Your task to perform on an android device: Clear the shopping cart on bestbuy.com. Image 0: 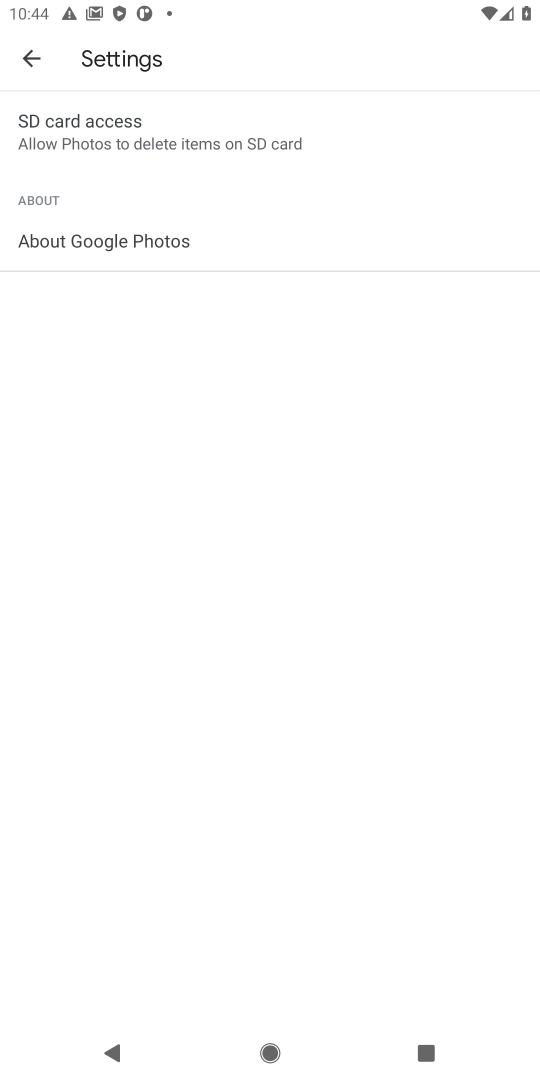
Step 0: press home button
Your task to perform on an android device: Clear the shopping cart on bestbuy.com. Image 1: 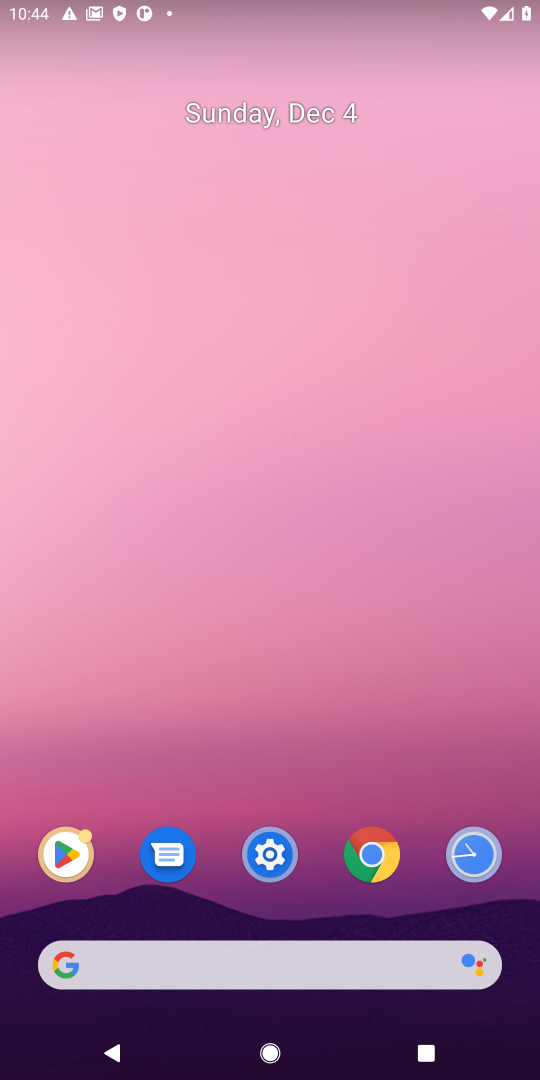
Step 1: click (278, 978)
Your task to perform on an android device: Clear the shopping cart on bestbuy.com. Image 2: 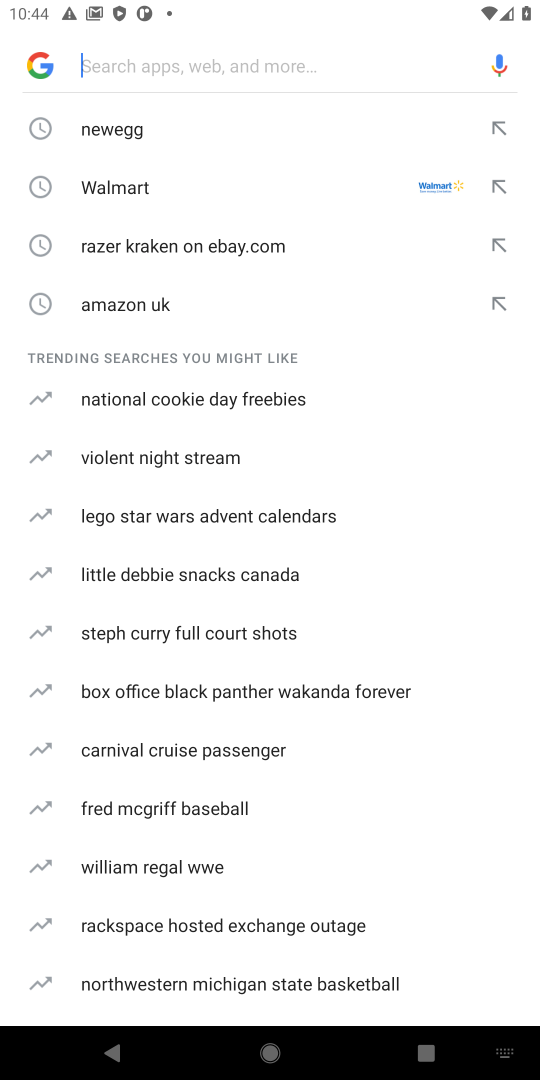
Step 2: click (161, 157)
Your task to perform on an android device: Clear the shopping cart on bestbuy.com. Image 3: 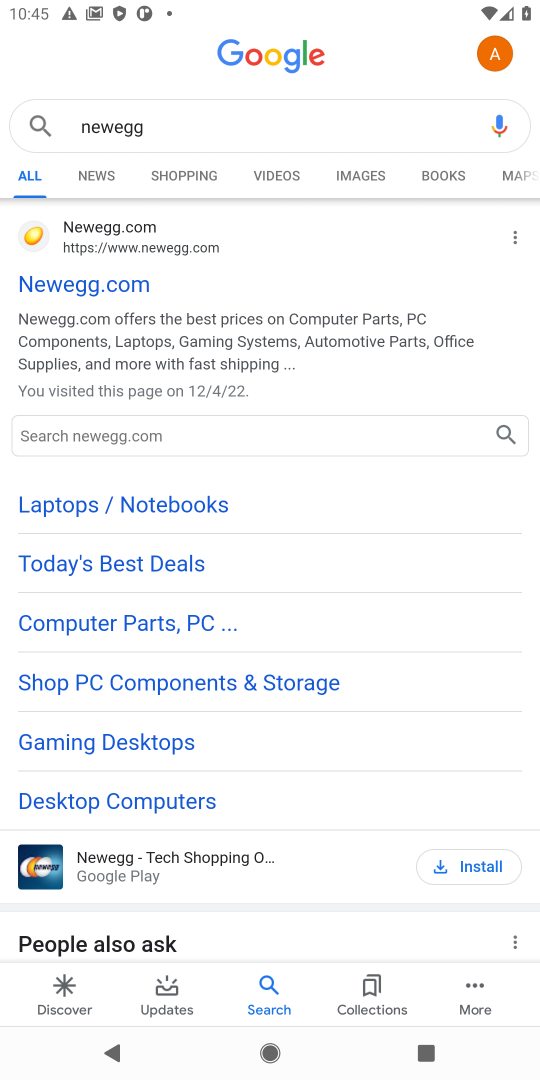
Step 3: click (97, 264)
Your task to perform on an android device: Clear the shopping cart on bestbuy.com. Image 4: 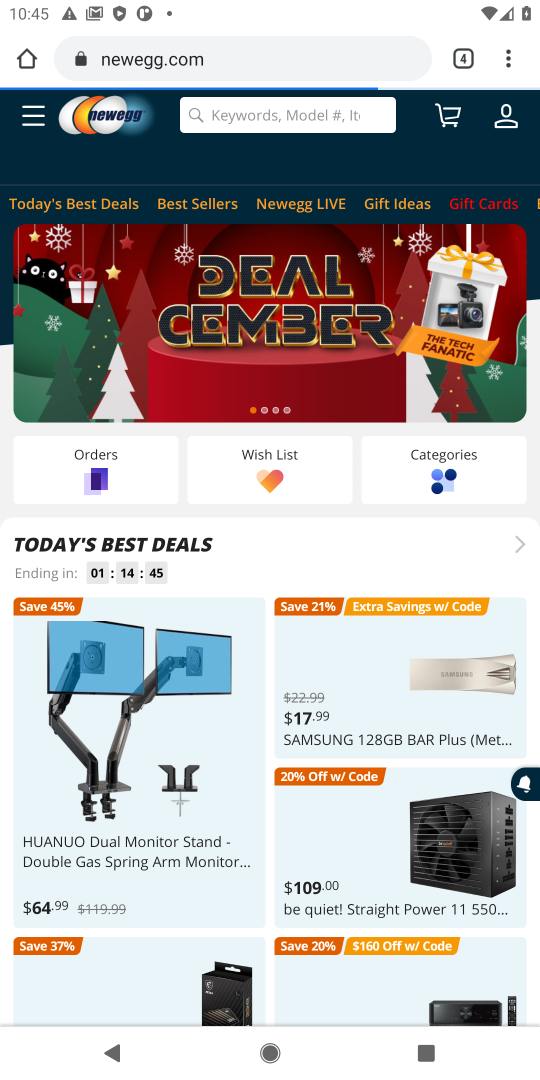
Step 4: task complete